Your task to perform on an android device: read, delete, or share a saved page in the chrome app Image 0: 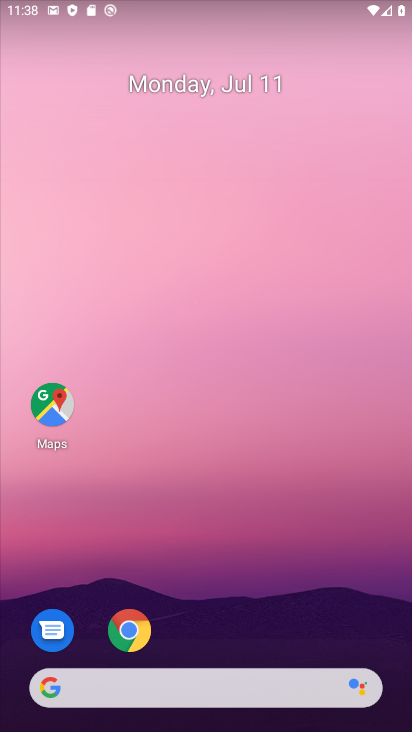
Step 0: click (144, 633)
Your task to perform on an android device: read, delete, or share a saved page in the chrome app Image 1: 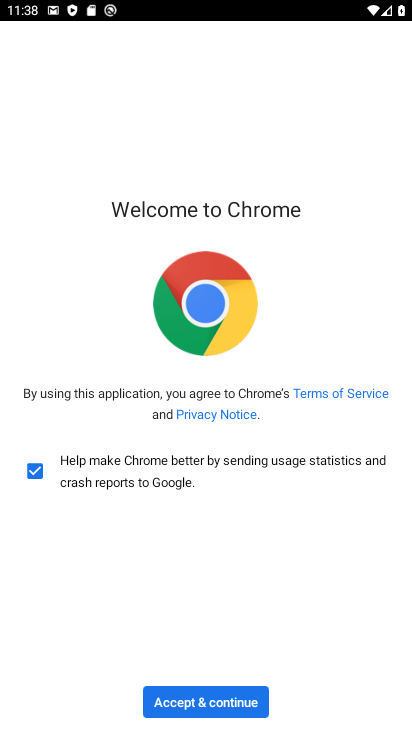
Step 1: click (220, 702)
Your task to perform on an android device: read, delete, or share a saved page in the chrome app Image 2: 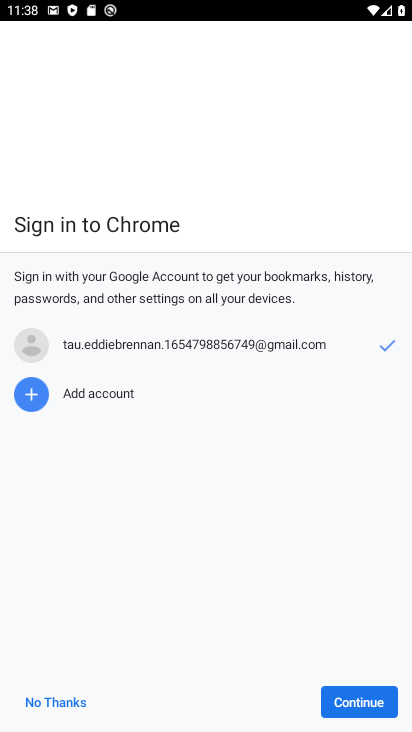
Step 2: click (360, 700)
Your task to perform on an android device: read, delete, or share a saved page in the chrome app Image 3: 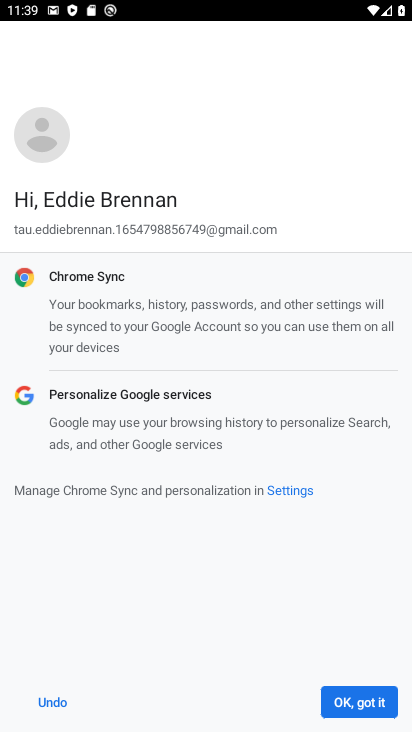
Step 3: click (383, 709)
Your task to perform on an android device: read, delete, or share a saved page in the chrome app Image 4: 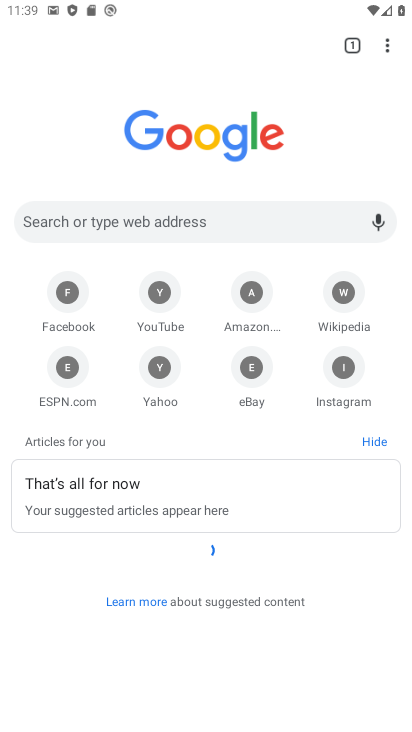
Step 4: click (384, 36)
Your task to perform on an android device: read, delete, or share a saved page in the chrome app Image 5: 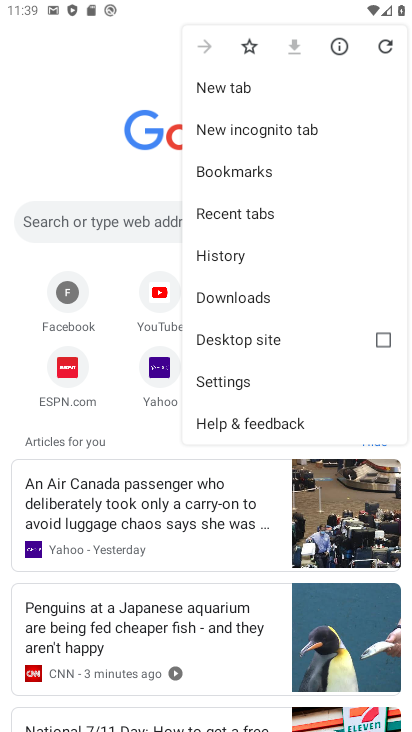
Step 5: click (261, 296)
Your task to perform on an android device: read, delete, or share a saved page in the chrome app Image 6: 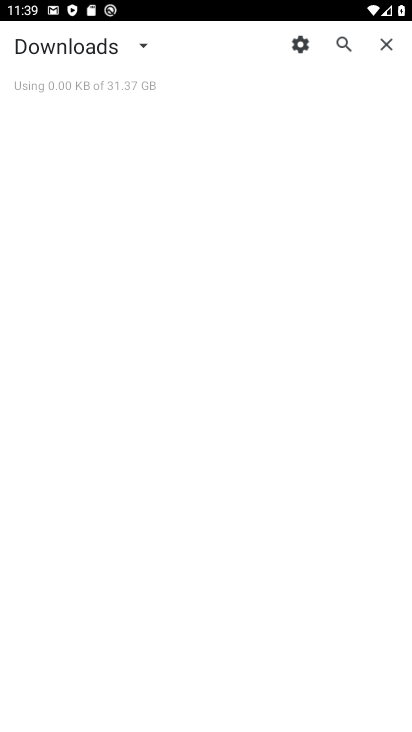
Step 6: click (142, 58)
Your task to perform on an android device: read, delete, or share a saved page in the chrome app Image 7: 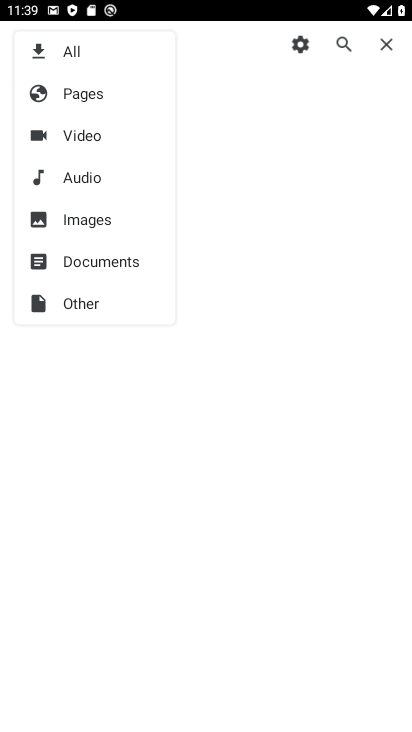
Step 7: click (86, 100)
Your task to perform on an android device: read, delete, or share a saved page in the chrome app Image 8: 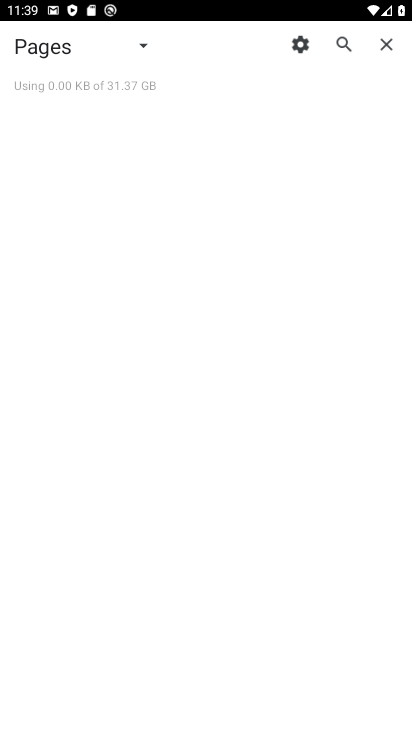
Step 8: click (394, 185)
Your task to perform on an android device: read, delete, or share a saved page in the chrome app Image 9: 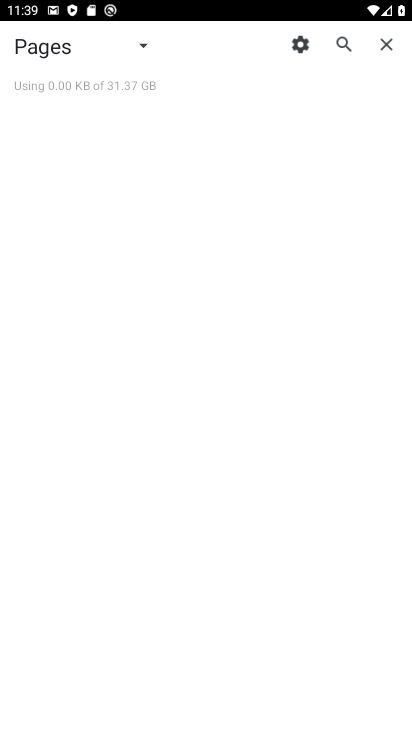
Step 9: task complete